Your task to perform on an android device: see tabs open on other devices in the chrome app Image 0: 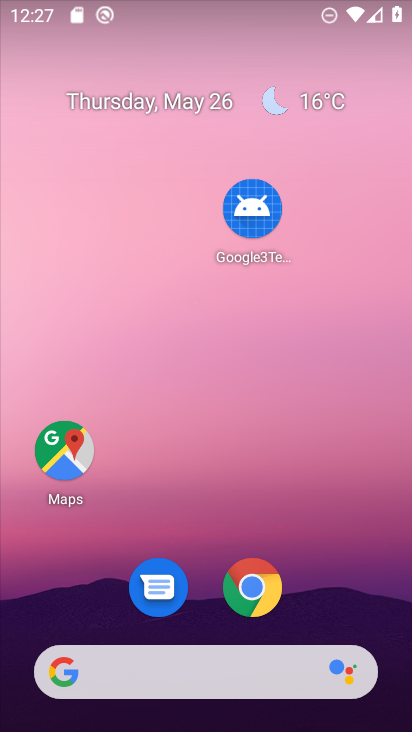
Step 0: click (242, 589)
Your task to perform on an android device: see tabs open on other devices in the chrome app Image 1: 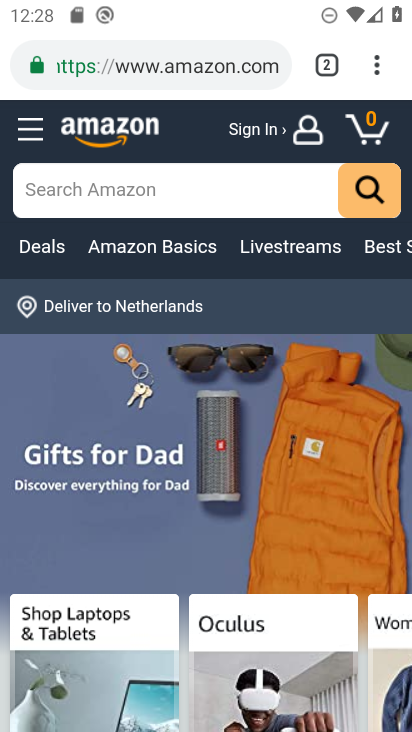
Step 1: task complete